Your task to perform on an android device: Open the map Image 0: 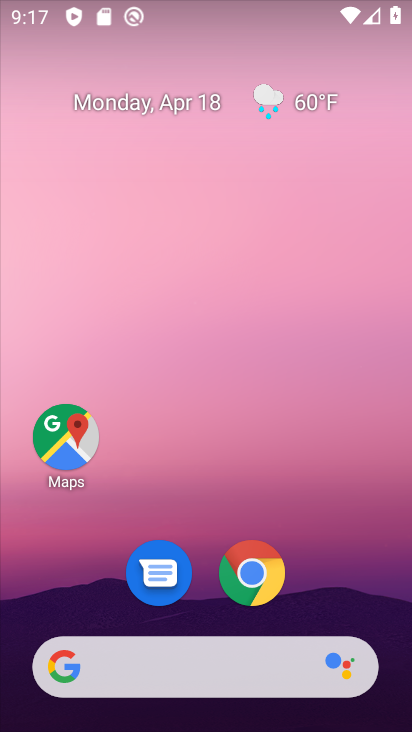
Step 0: drag from (210, 725) to (210, 180)
Your task to perform on an android device: Open the map Image 1: 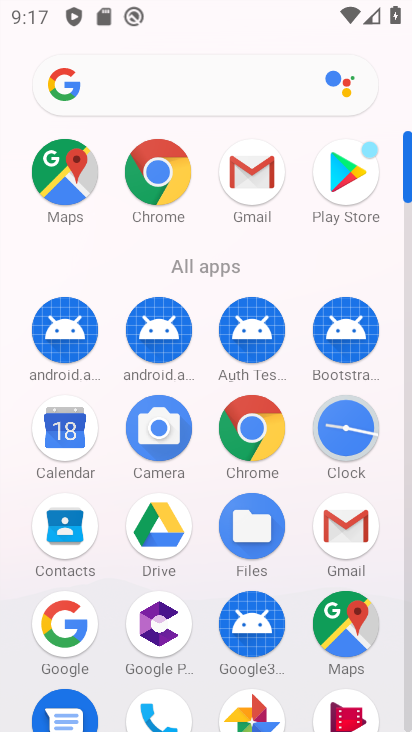
Step 1: click (350, 620)
Your task to perform on an android device: Open the map Image 2: 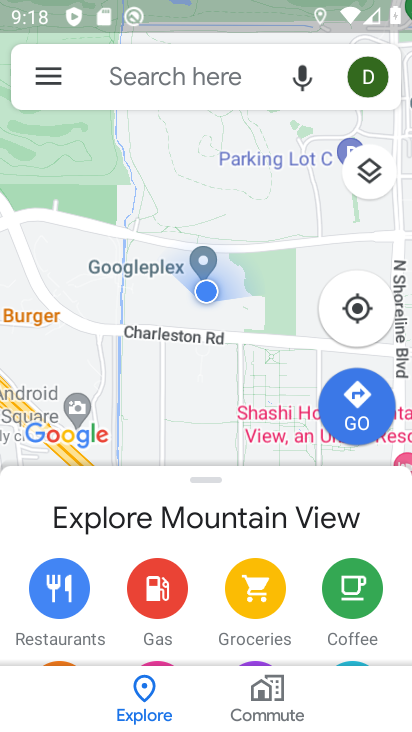
Step 2: task complete